Your task to perform on an android device: Go to Android settings Image 0: 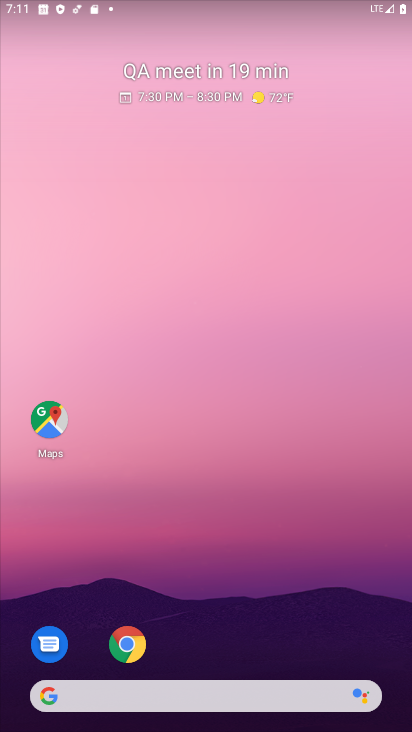
Step 0: drag from (224, 694) to (312, 323)
Your task to perform on an android device: Go to Android settings Image 1: 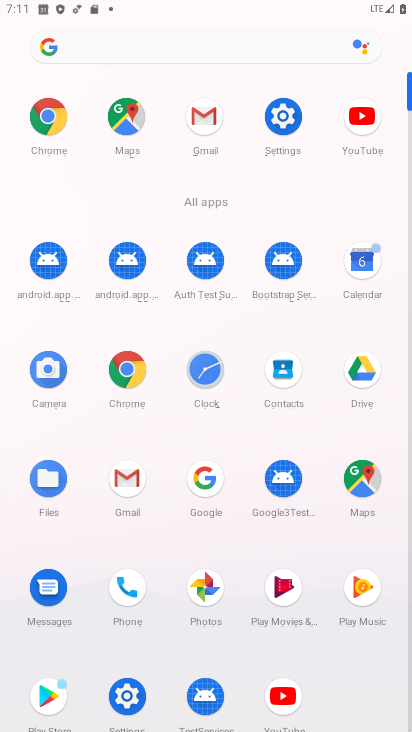
Step 1: click (292, 122)
Your task to perform on an android device: Go to Android settings Image 2: 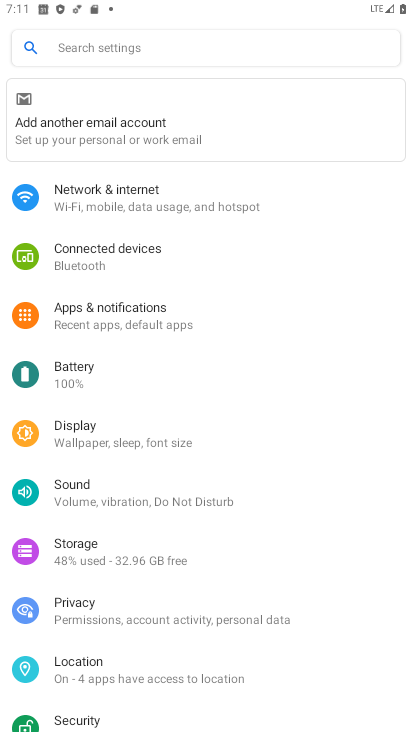
Step 2: click (289, 118)
Your task to perform on an android device: Go to Android settings Image 3: 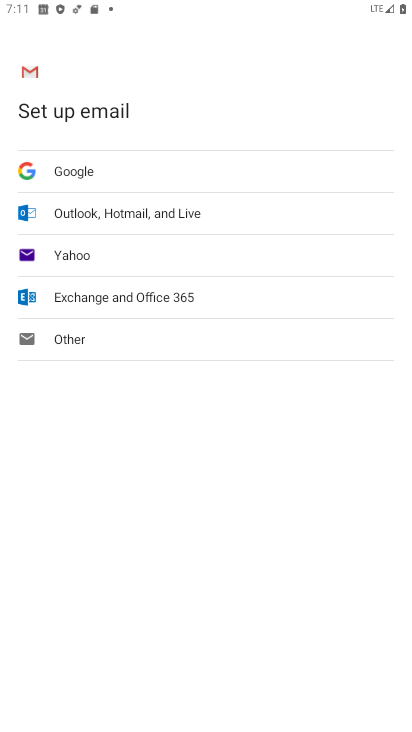
Step 3: press back button
Your task to perform on an android device: Go to Android settings Image 4: 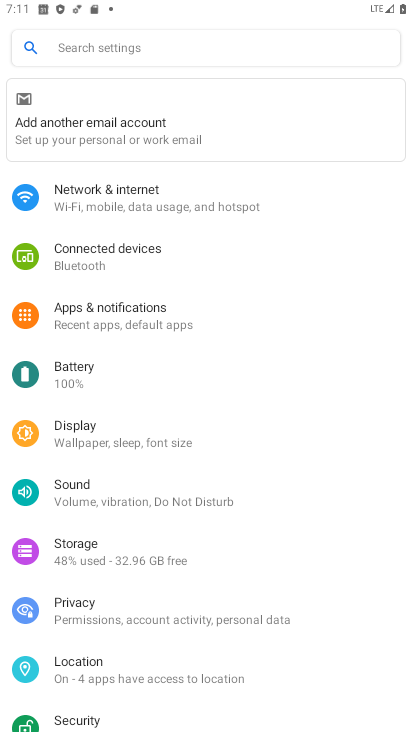
Step 4: click (184, 41)
Your task to perform on an android device: Go to Android settings Image 5: 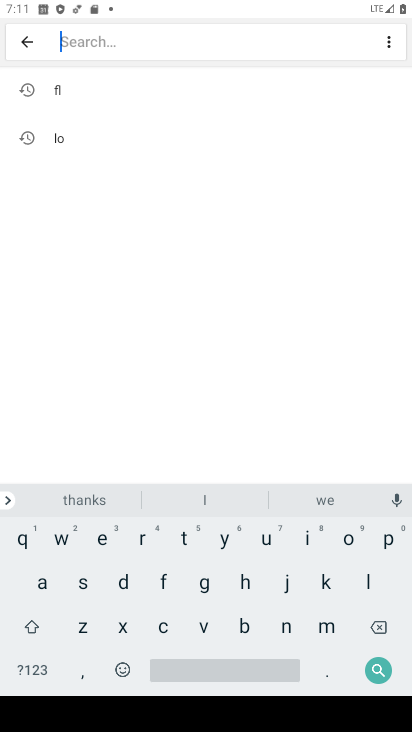
Step 5: click (33, 577)
Your task to perform on an android device: Go to Android settings Image 6: 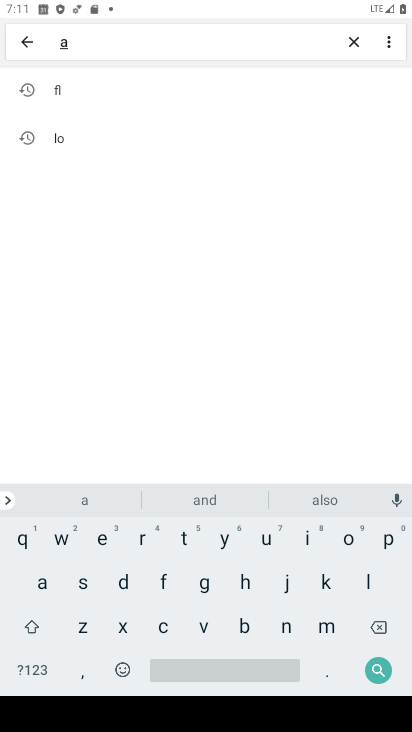
Step 6: click (289, 622)
Your task to perform on an android device: Go to Android settings Image 7: 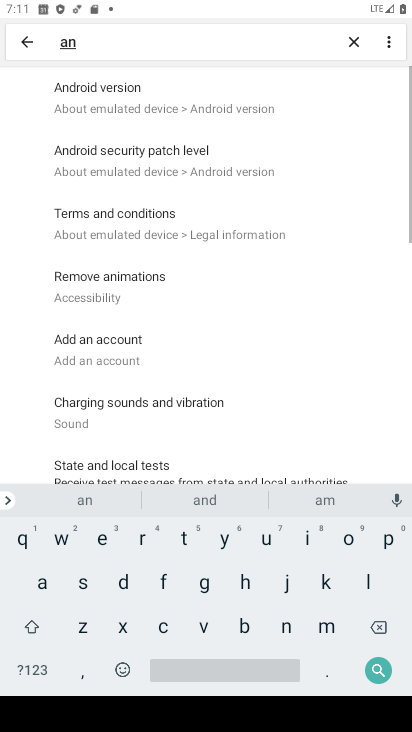
Step 7: click (105, 95)
Your task to perform on an android device: Go to Android settings Image 8: 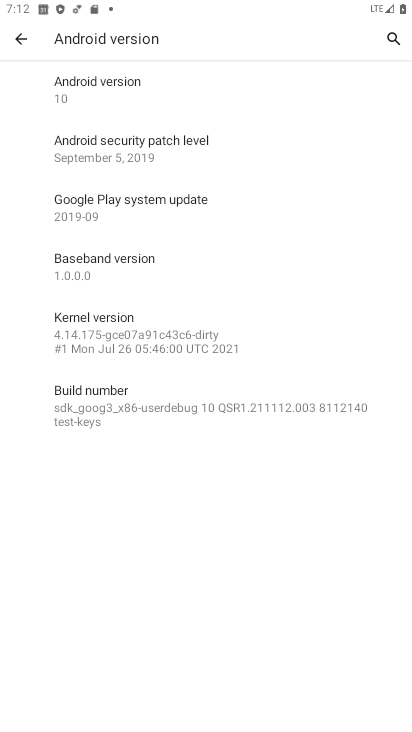
Step 8: task complete